Your task to perform on an android device: clear all cookies in the chrome app Image 0: 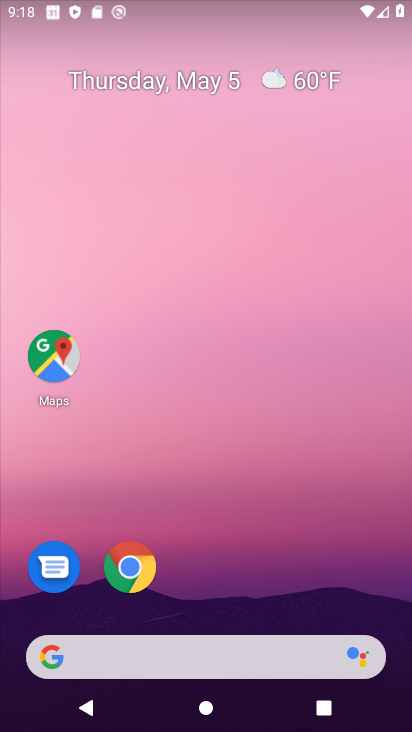
Step 0: click (129, 570)
Your task to perform on an android device: clear all cookies in the chrome app Image 1: 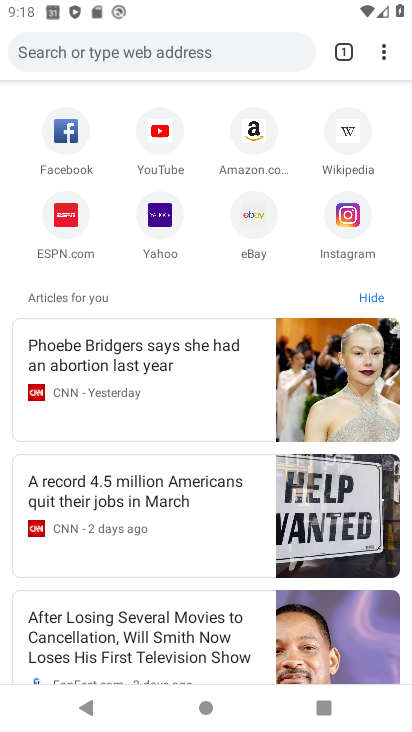
Step 1: click (383, 56)
Your task to perform on an android device: clear all cookies in the chrome app Image 2: 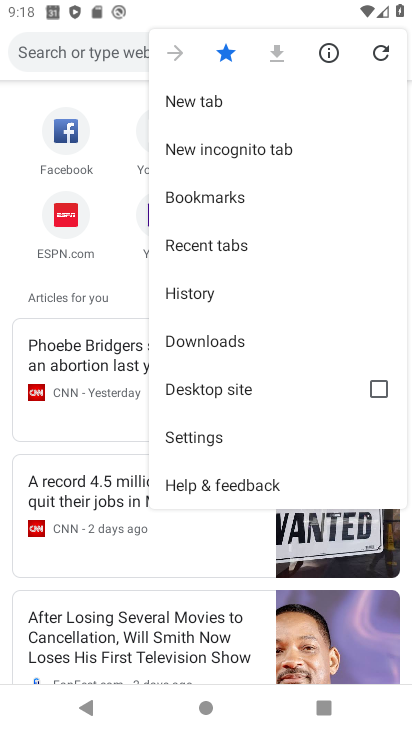
Step 2: click (193, 433)
Your task to perform on an android device: clear all cookies in the chrome app Image 3: 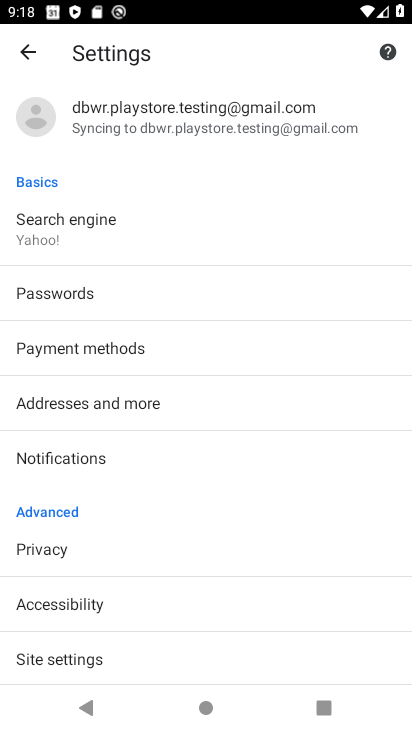
Step 3: drag from (80, 641) to (98, 290)
Your task to perform on an android device: clear all cookies in the chrome app Image 4: 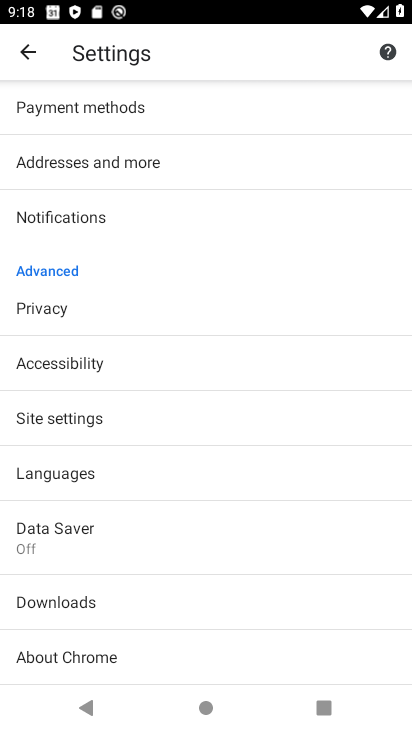
Step 4: drag from (154, 213) to (166, 262)
Your task to perform on an android device: clear all cookies in the chrome app Image 5: 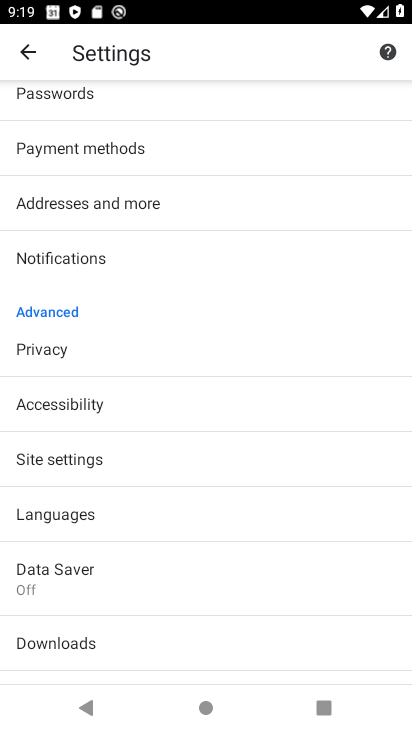
Step 5: drag from (157, 630) to (144, 312)
Your task to perform on an android device: clear all cookies in the chrome app Image 6: 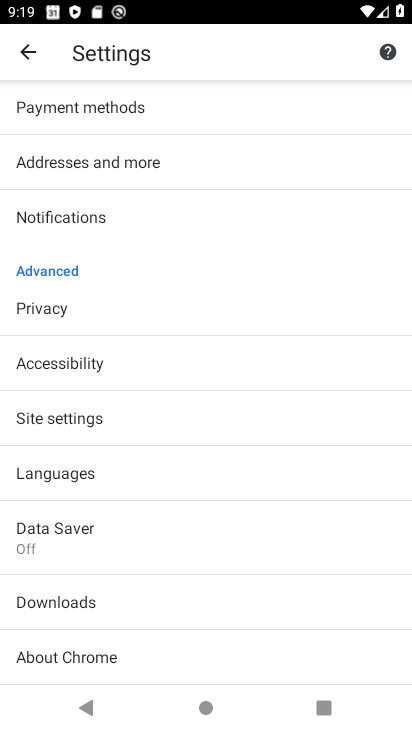
Step 6: click (48, 311)
Your task to perform on an android device: clear all cookies in the chrome app Image 7: 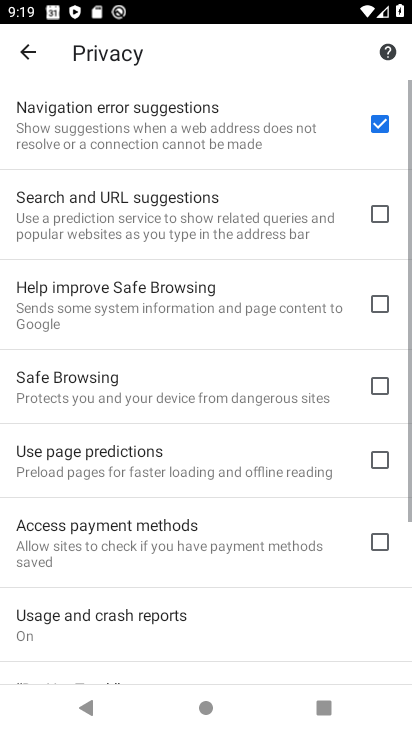
Step 7: drag from (169, 664) to (147, 162)
Your task to perform on an android device: clear all cookies in the chrome app Image 8: 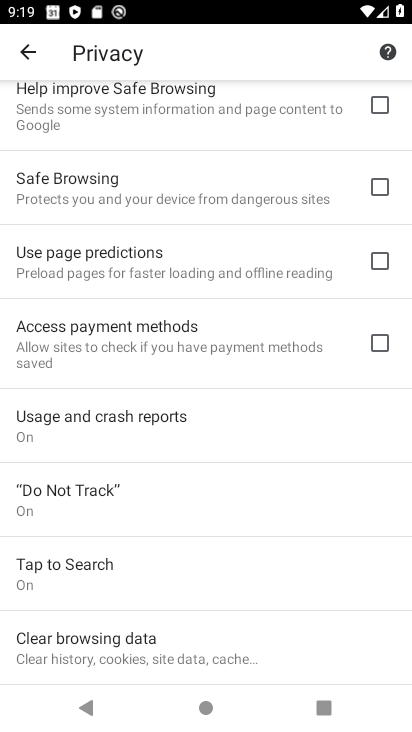
Step 8: click (168, 649)
Your task to perform on an android device: clear all cookies in the chrome app Image 9: 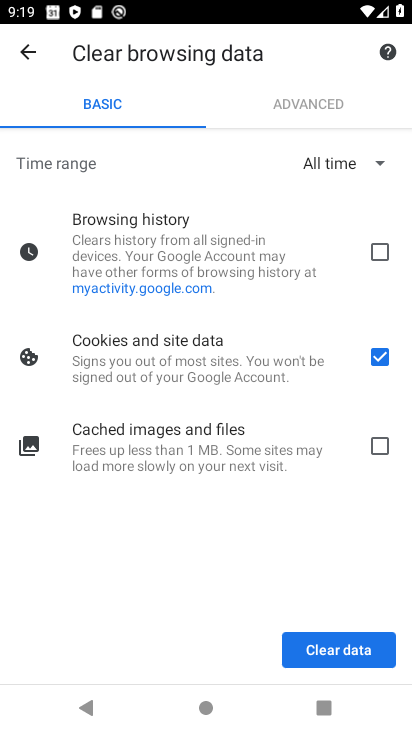
Step 9: click (334, 647)
Your task to perform on an android device: clear all cookies in the chrome app Image 10: 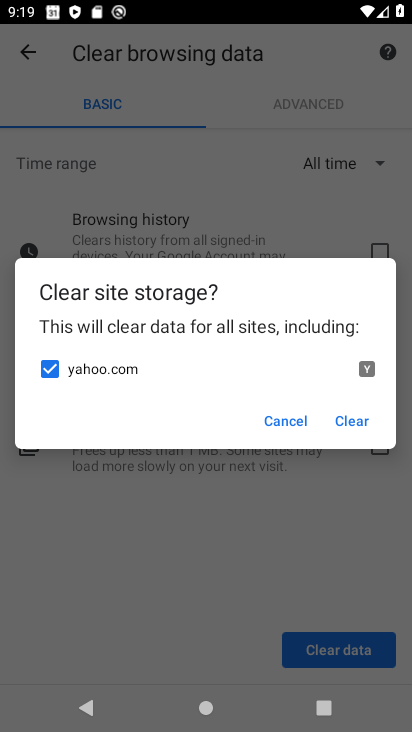
Step 10: click (351, 419)
Your task to perform on an android device: clear all cookies in the chrome app Image 11: 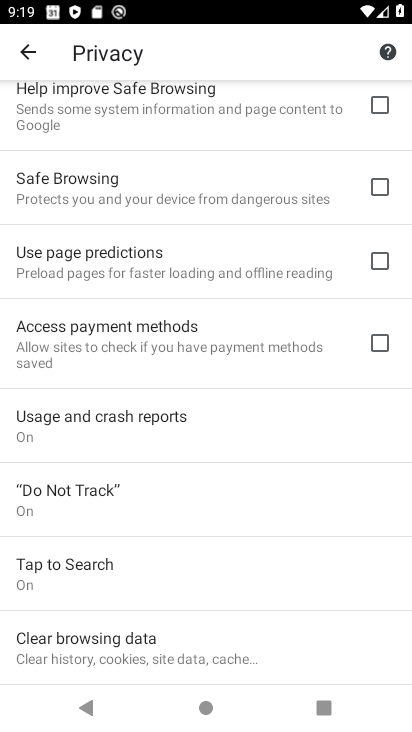
Step 11: task complete